Your task to perform on an android device: Go to Google maps Image 0: 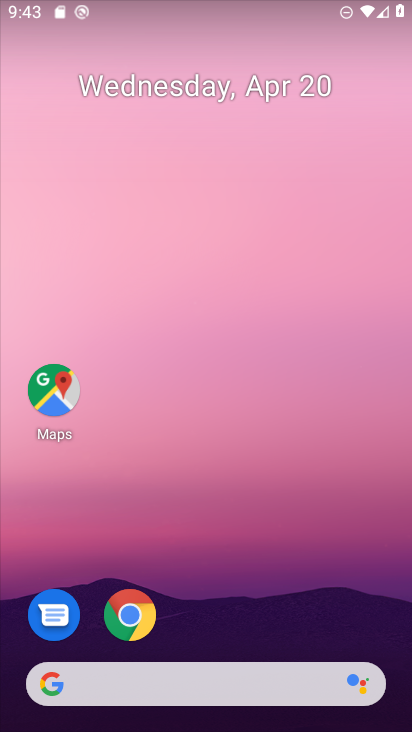
Step 0: click (55, 391)
Your task to perform on an android device: Go to Google maps Image 1: 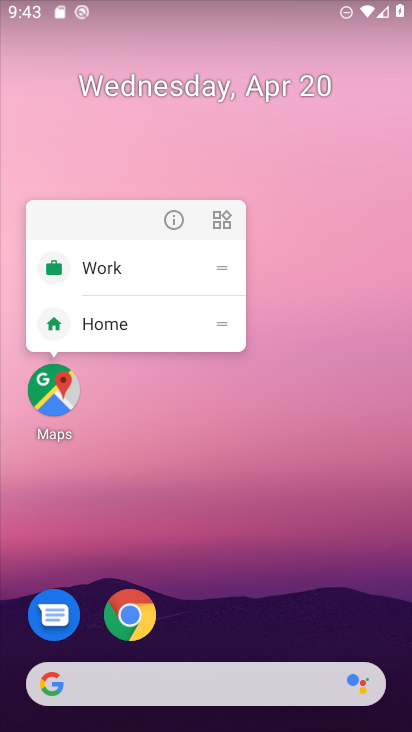
Step 1: click (55, 391)
Your task to perform on an android device: Go to Google maps Image 2: 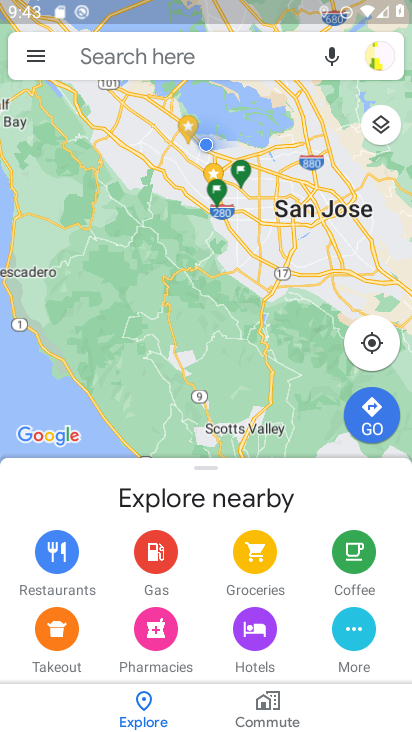
Step 2: task complete